Your task to perform on an android device: open app "Spotify: Music and Podcasts" (install if not already installed), go to login, and select forgot password Image 0: 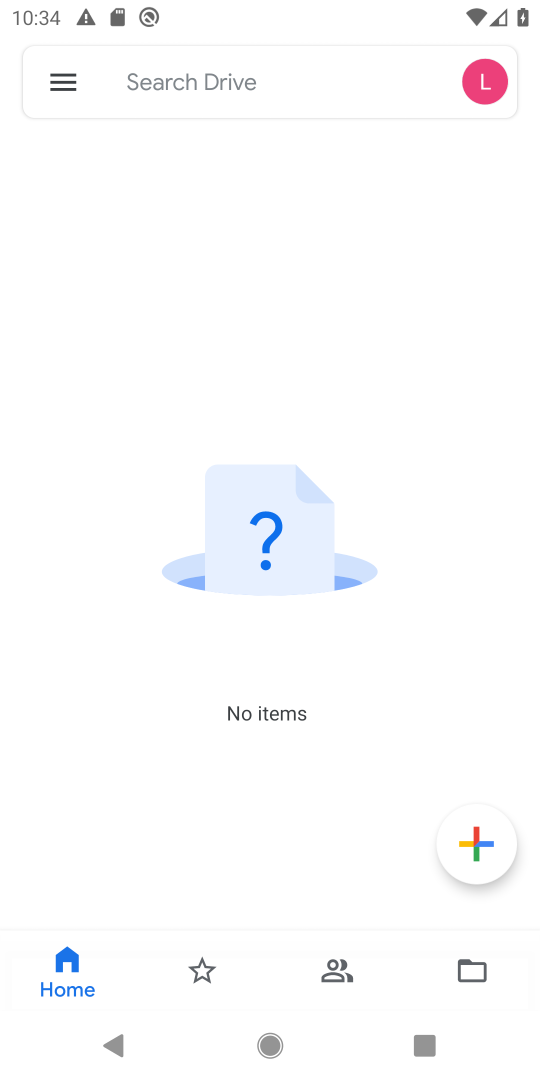
Step 0: press home button
Your task to perform on an android device: open app "Spotify: Music and Podcasts" (install if not already installed), go to login, and select forgot password Image 1: 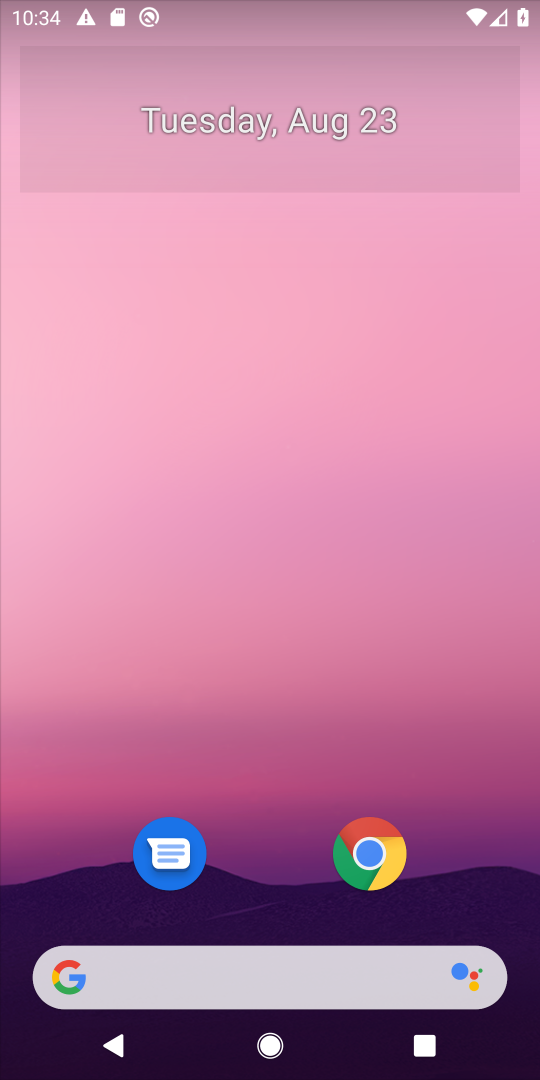
Step 1: drag from (400, 909) to (507, 299)
Your task to perform on an android device: open app "Spotify: Music and Podcasts" (install if not already installed), go to login, and select forgot password Image 2: 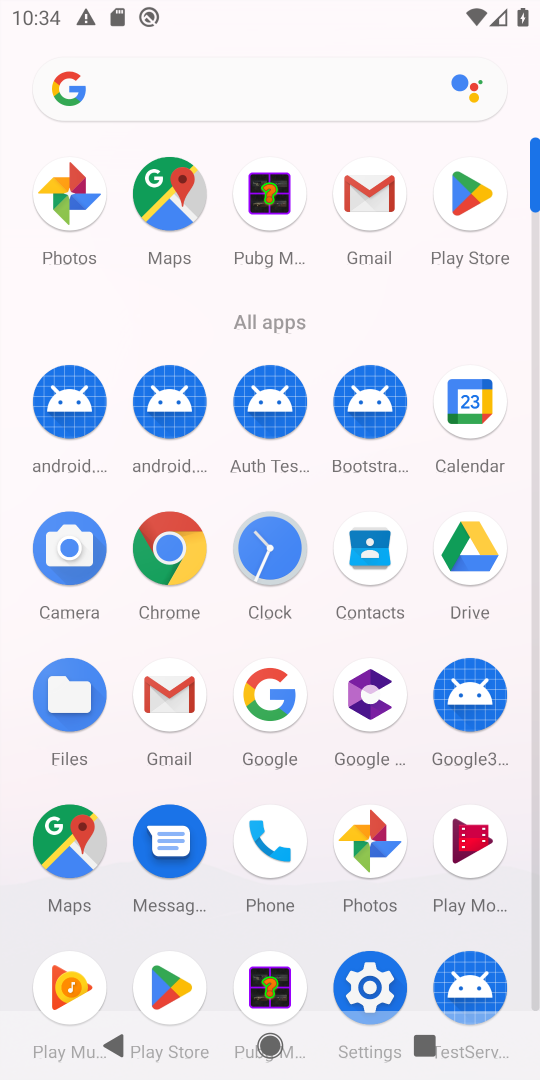
Step 2: click (469, 195)
Your task to perform on an android device: open app "Spotify: Music and Podcasts" (install if not already installed), go to login, and select forgot password Image 3: 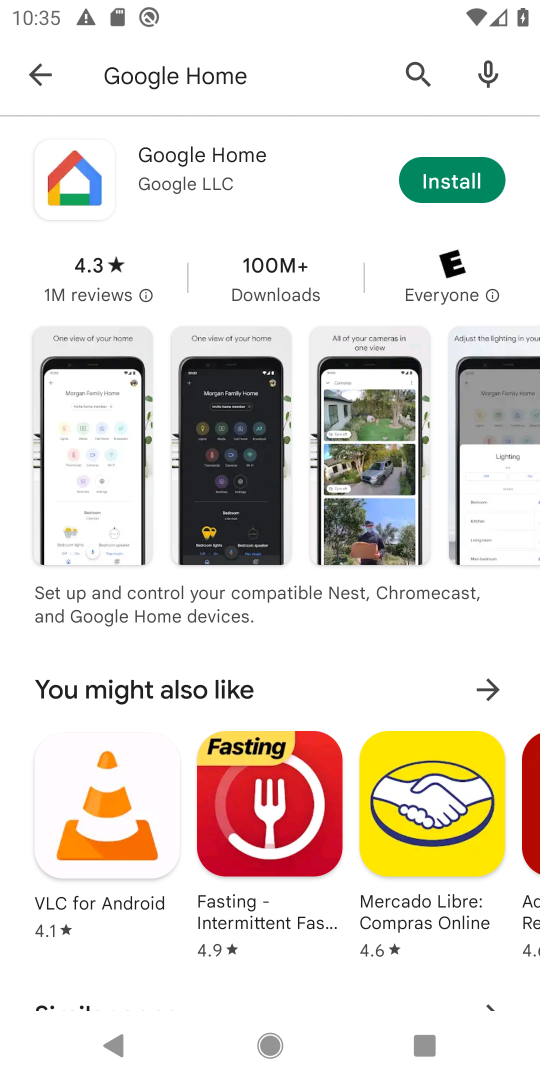
Step 3: press back button
Your task to perform on an android device: open app "Spotify: Music and Podcasts" (install if not already installed), go to login, and select forgot password Image 4: 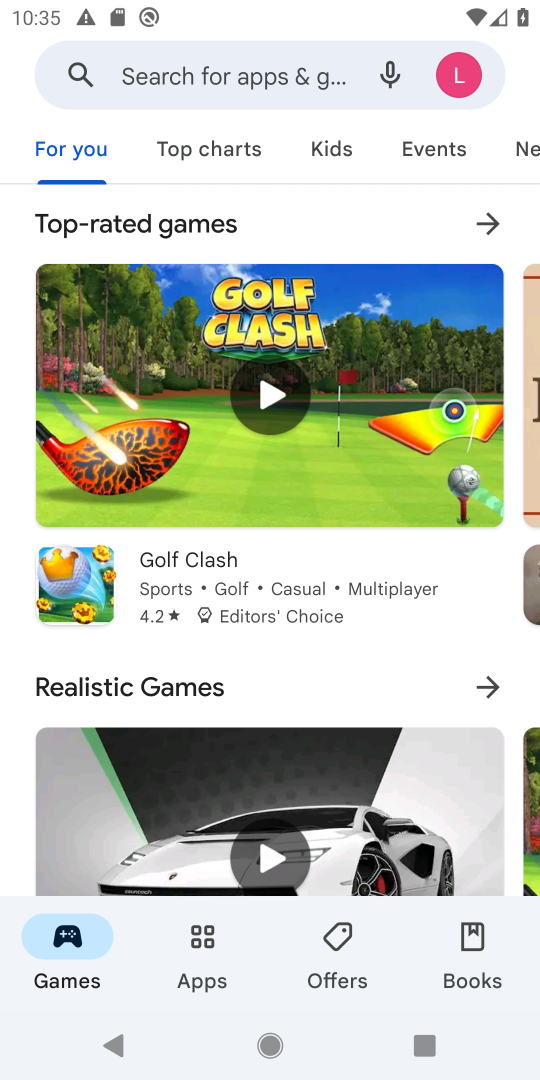
Step 4: click (283, 92)
Your task to perform on an android device: open app "Spotify: Music and Podcasts" (install if not already installed), go to login, and select forgot password Image 5: 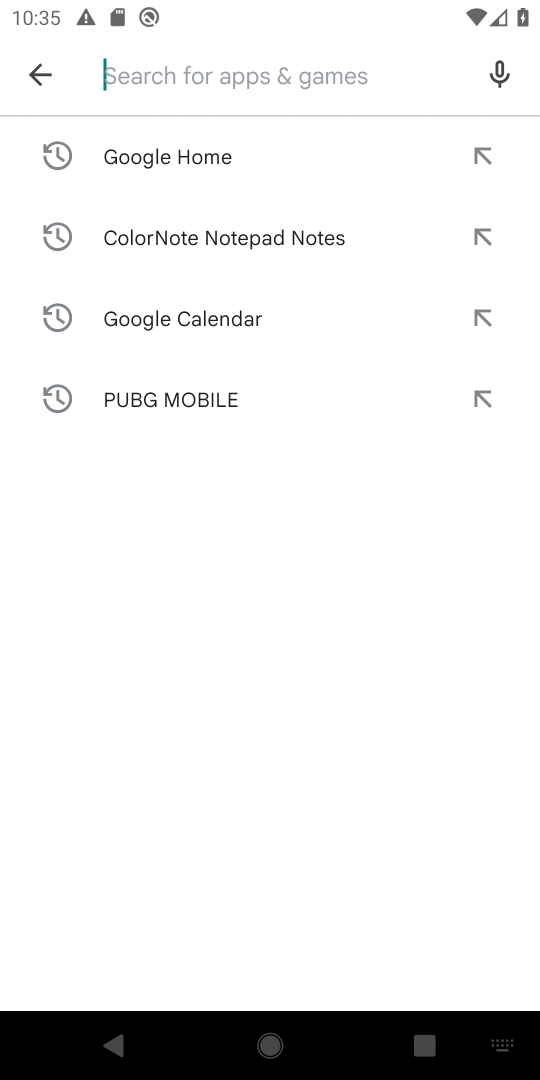
Step 5: type "Spotify: Music and Podcasts"
Your task to perform on an android device: open app "Spotify: Music and Podcasts" (install if not already installed), go to login, and select forgot password Image 6: 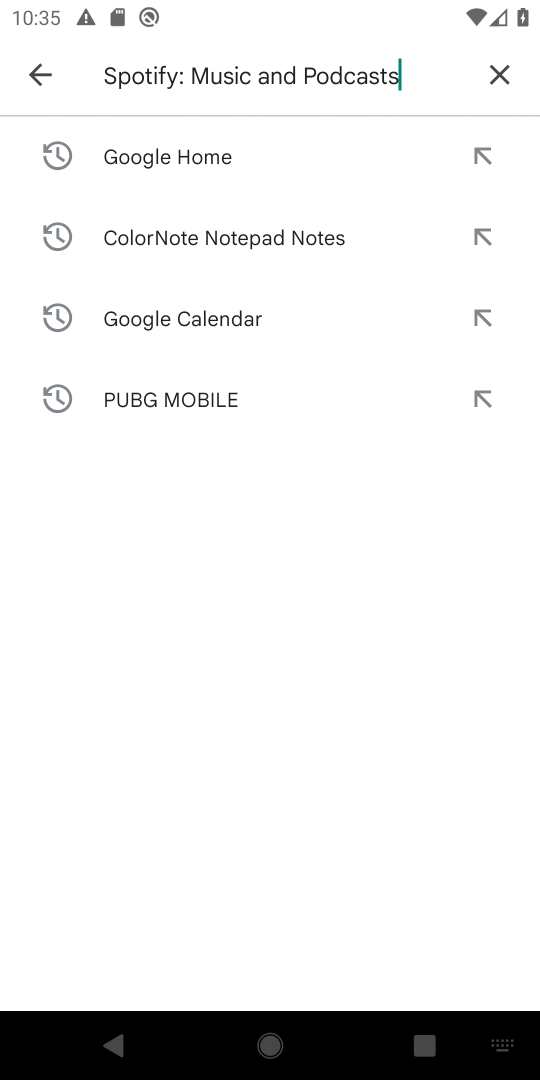
Step 6: press enter
Your task to perform on an android device: open app "Spotify: Music and Podcasts" (install if not already installed), go to login, and select forgot password Image 7: 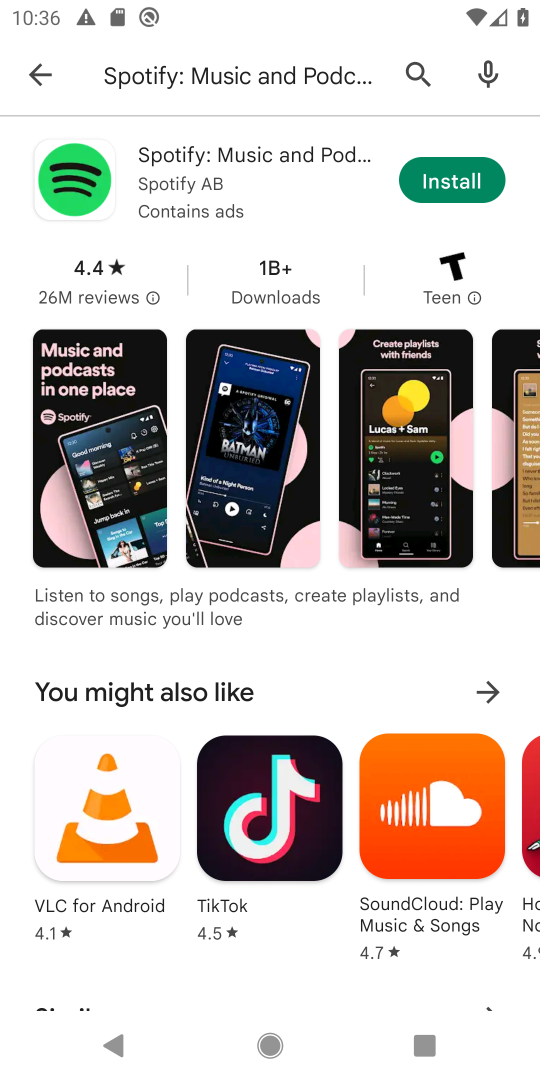
Step 7: click (455, 185)
Your task to perform on an android device: open app "Spotify: Music and Podcasts" (install if not already installed), go to login, and select forgot password Image 8: 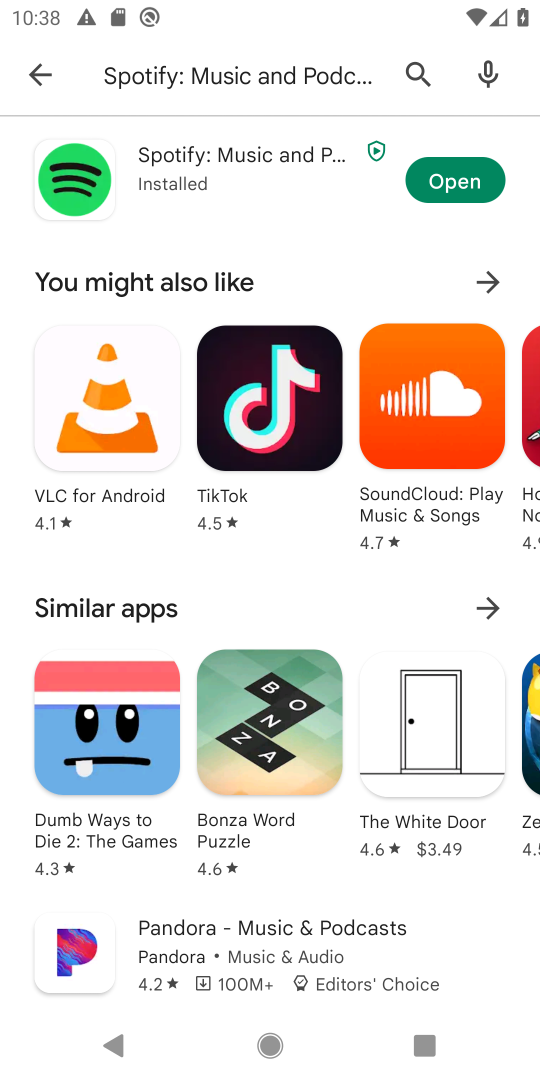
Step 8: click (457, 180)
Your task to perform on an android device: open app "Spotify: Music and Podcasts" (install if not already installed), go to login, and select forgot password Image 9: 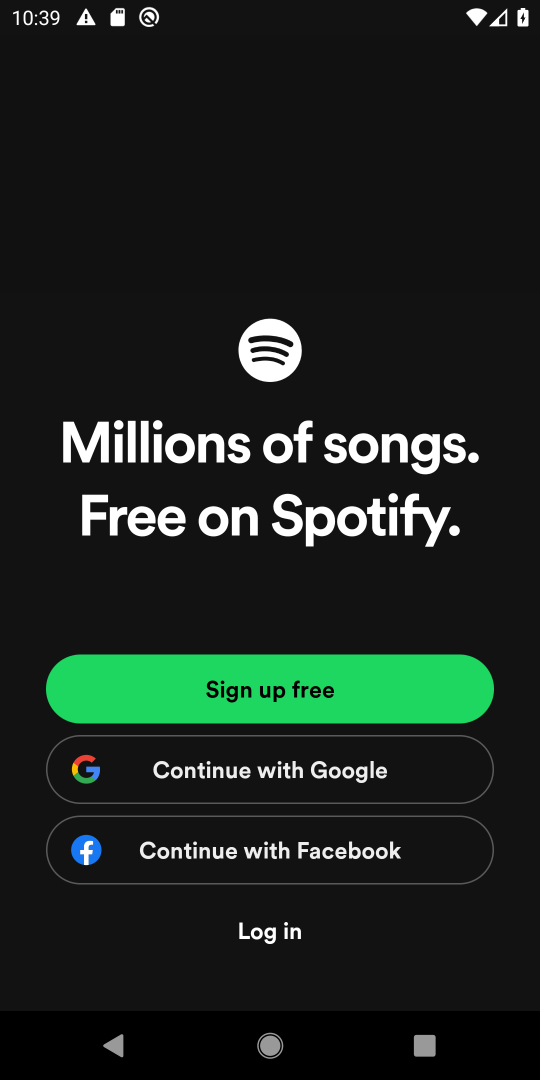
Step 9: task complete